Your task to perform on an android device: Go to display settings Image 0: 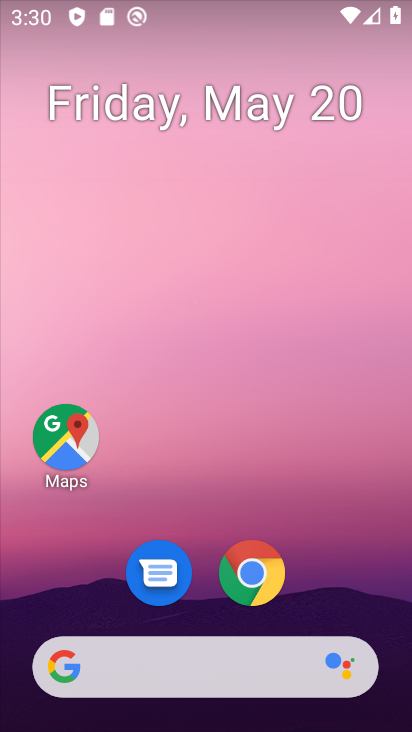
Step 0: click (81, 318)
Your task to perform on an android device: Go to display settings Image 1: 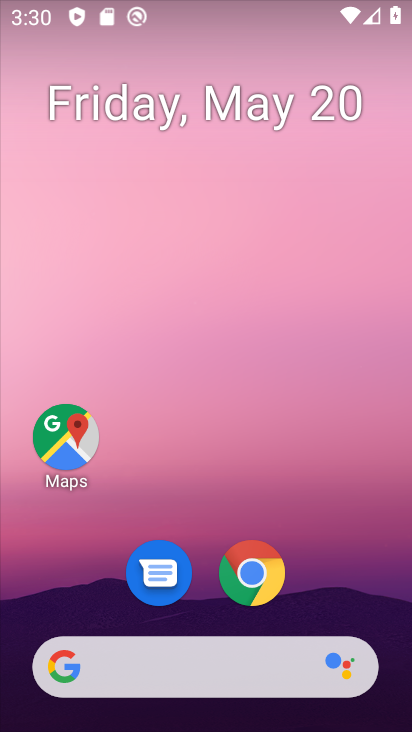
Step 1: drag from (349, 592) to (323, 186)
Your task to perform on an android device: Go to display settings Image 2: 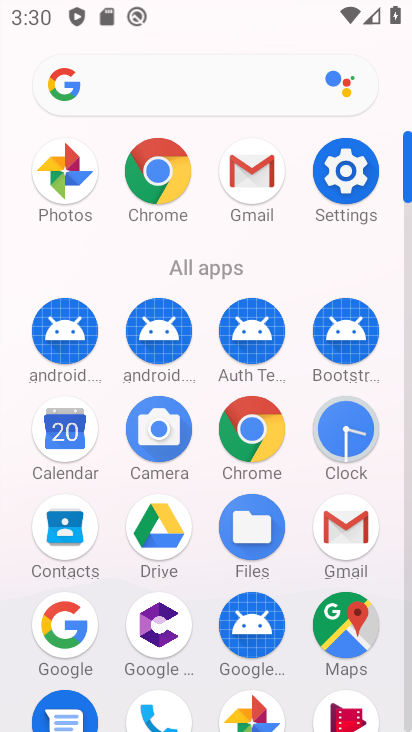
Step 2: click (368, 183)
Your task to perform on an android device: Go to display settings Image 3: 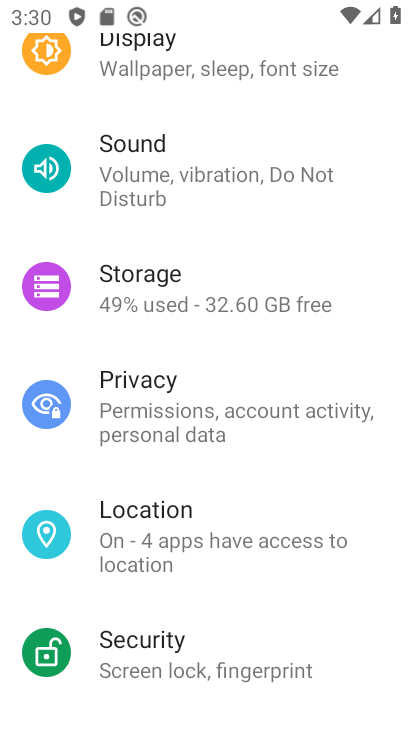
Step 3: drag from (154, 154) to (187, 393)
Your task to perform on an android device: Go to display settings Image 4: 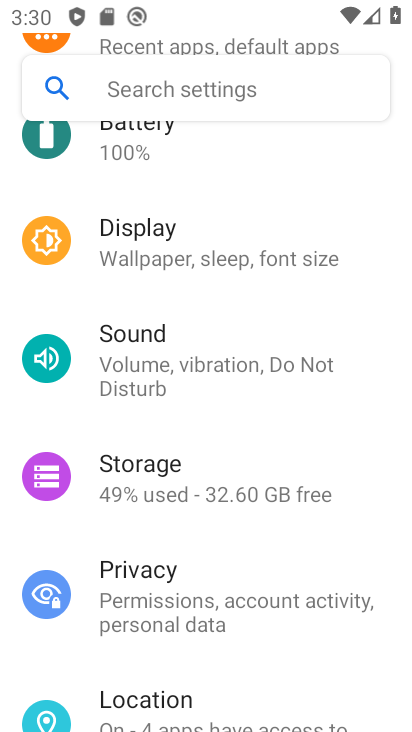
Step 4: click (179, 254)
Your task to perform on an android device: Go to display settings Image 5: 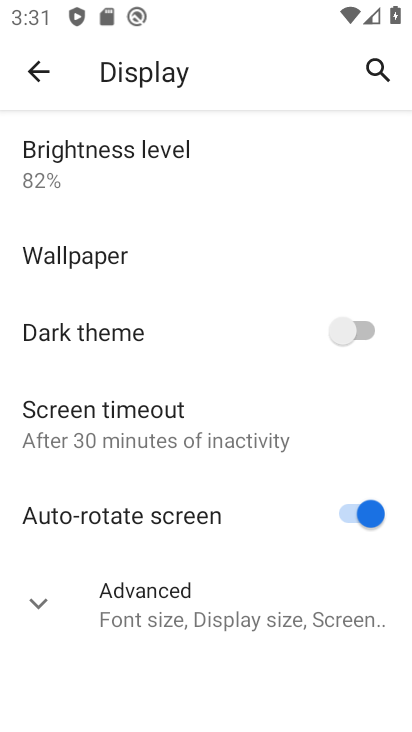
Step 5: task complete